Your task to perform on an android device: change text size in settings app Image 0: 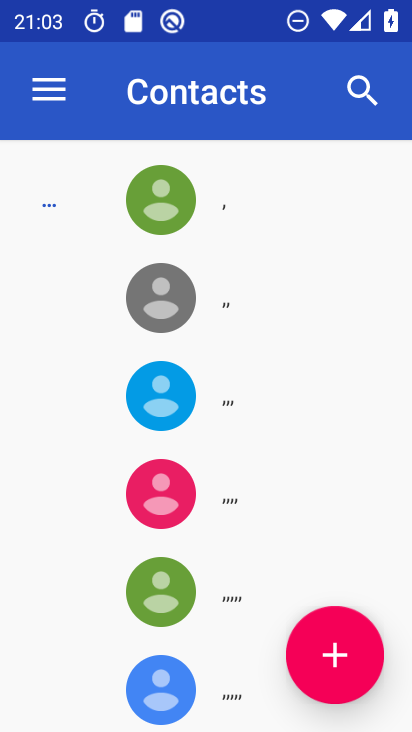
Step 0: press home button
Your task to perform on an android device: change text size in settings app Image 1: 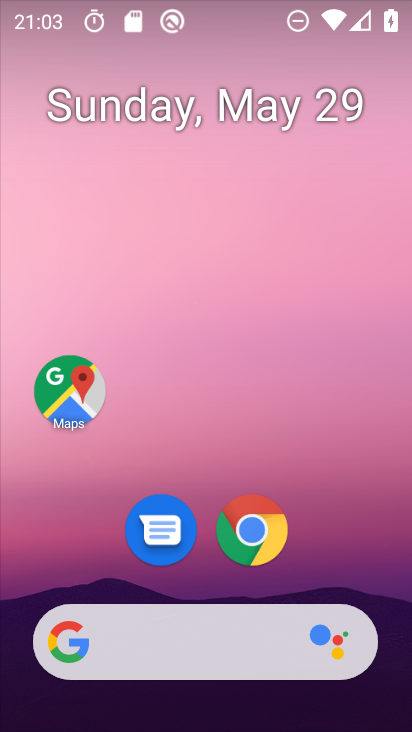
Step 1: drag from (261, 536) to (321, 82)
Your task to perform on an android device: change text size in settings app Image 2: 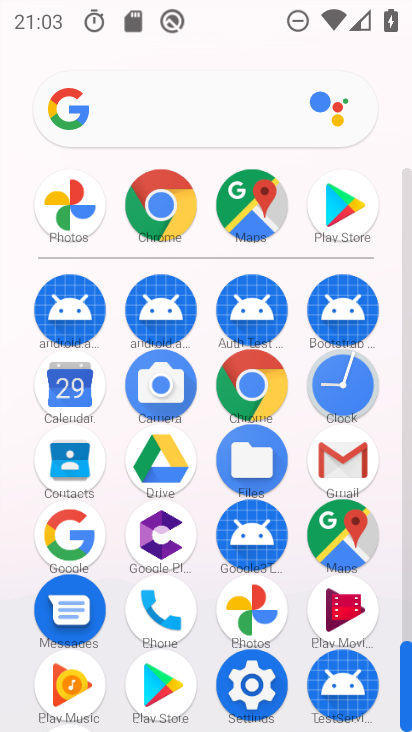
Step 2: click (242, 682)
Your task to perform on an android device: change text size in settings app Image 3: 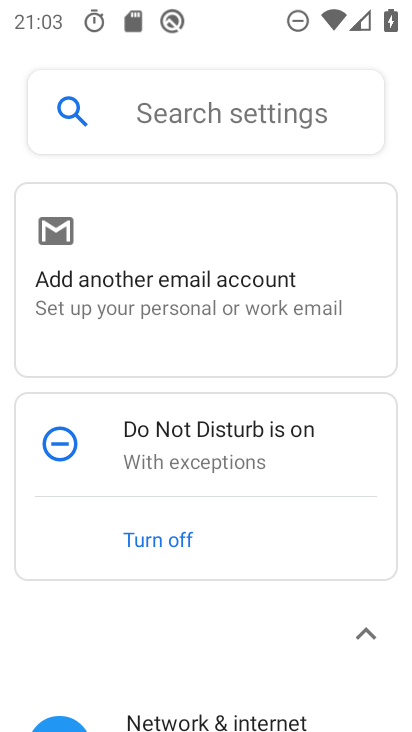
Step 3: click (193, 118)
Your task to perform on an android device: change text size in settings app Image 4: 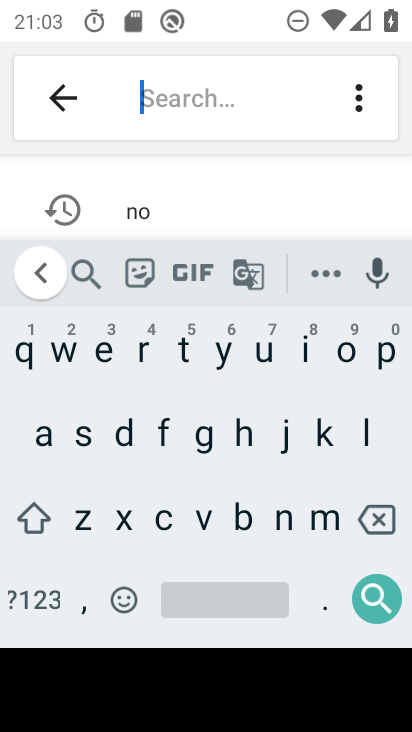
Step 4: click (79, 439)
Your task to perform on an android device: change text size in settings app Image 5: 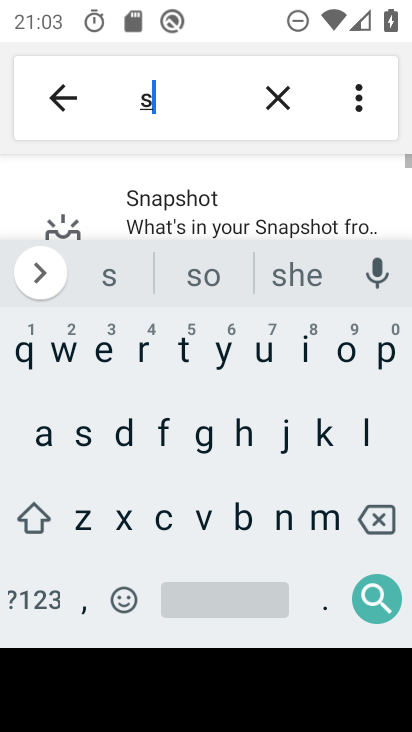
Step 5: click (298, 353)
Your task to perform on an android device: change text size in settings app Image 6: 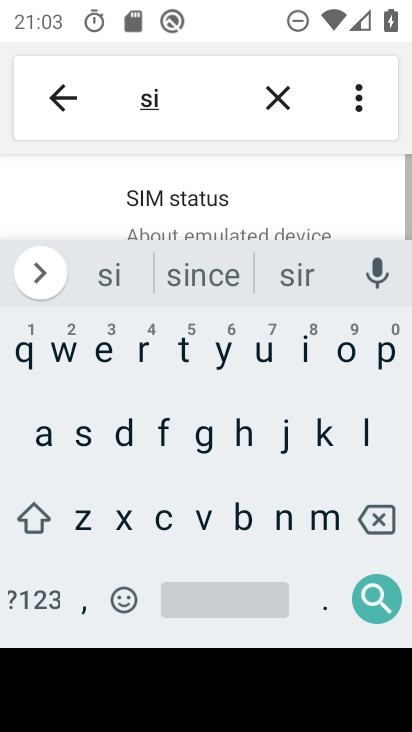
Step 6: click (72, 525)
Your task to perform on an android device: change text size in settings app Image 7: 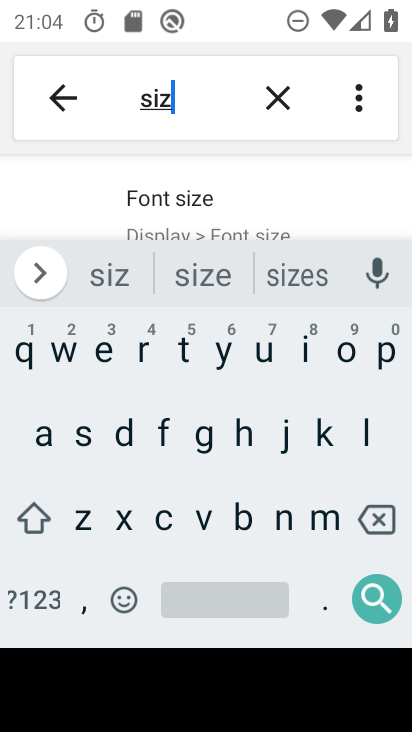
Step 7: click (290, 230)
Your task to perform on an android device: change text size in settings app Image 8: 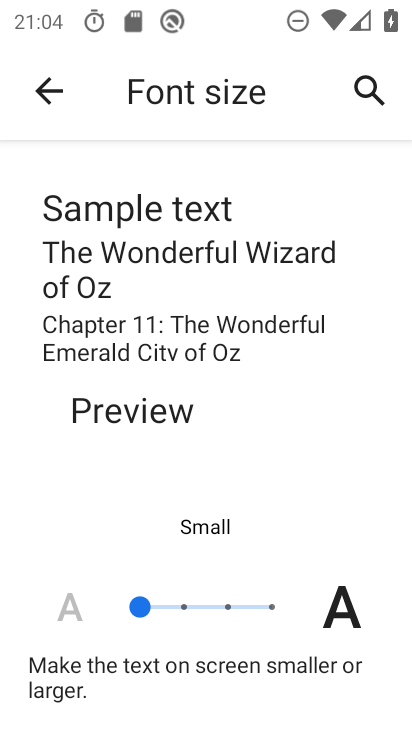
Step 8: click (183, 600)
Your task to perform on an android device: change text size in settings app Image 9: 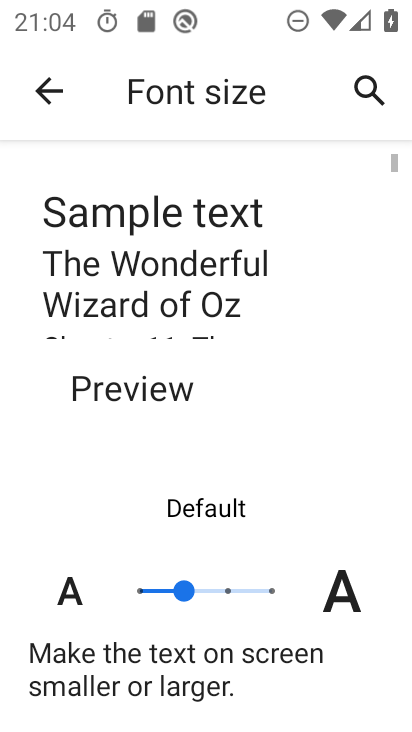
Step 9: task complete